Your task to perform on an android device: open sync settings in chrome Image 0: 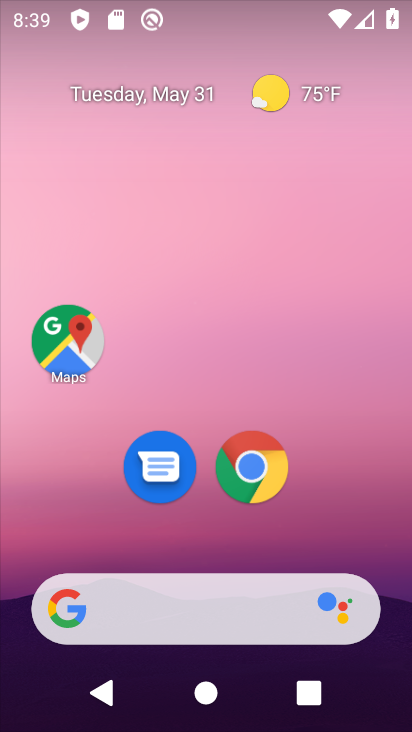
Step 0: drag from (216, 511) to (272, 135)
Your task to perform on an android device: open sync settings in chrome Image 1: 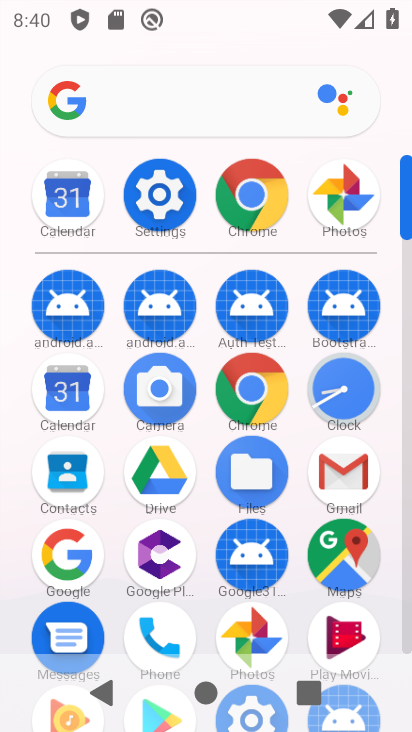
Step 1: click (260, 203)
Your task to perform on an android device: open sync settings in chrome Image 2: 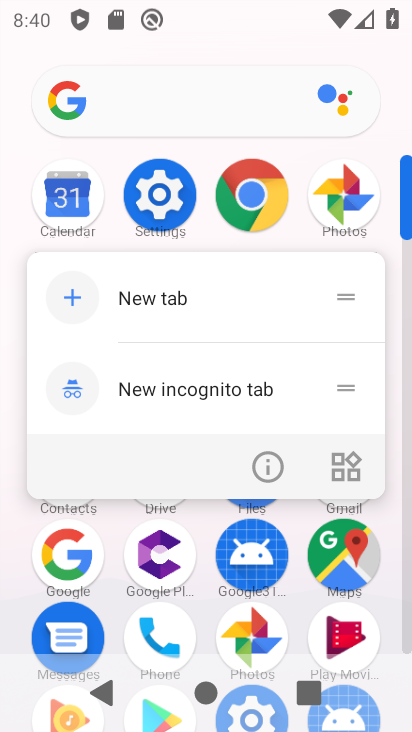
Step 2: click (268, 455)
Your task to perform on an android device: open sync settings in chrome Image 3: 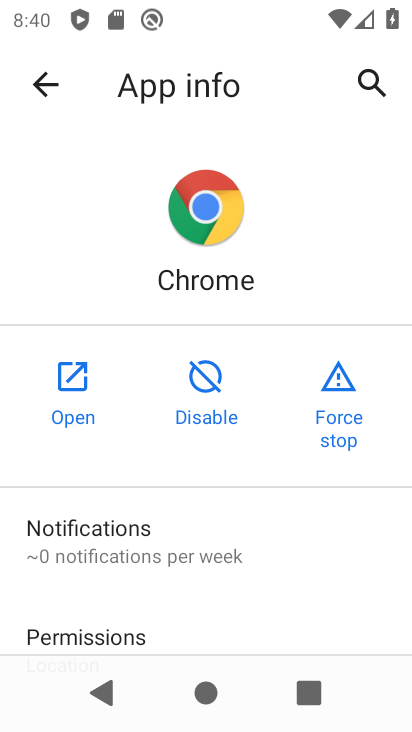
Step 3: click (67, 391)
Your task to perform on an android device: open sync settings in chrome Image 4: 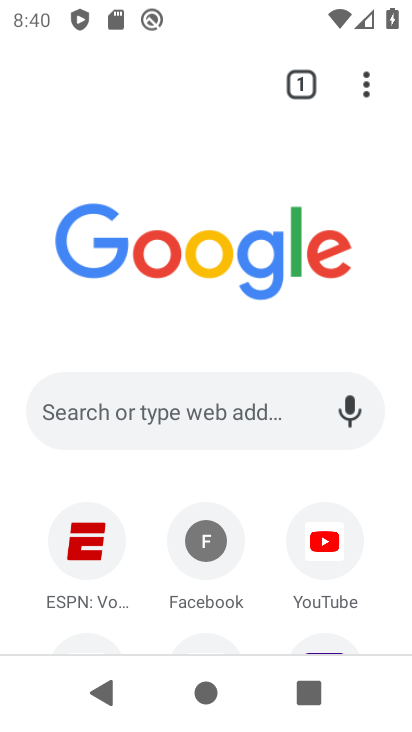
Step 4: click (363, 91)
Your task to perform on an android device: open sync settings in chrome Image 5: 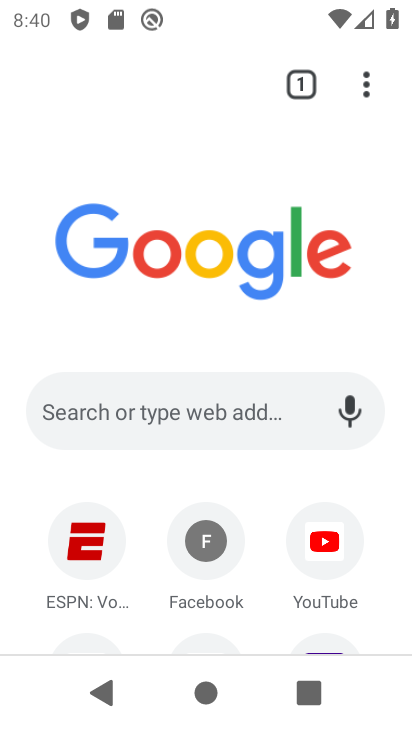
Step 5: click (364, 91)
Your task to perform on an android device: open sync settings in chrome Image 6: 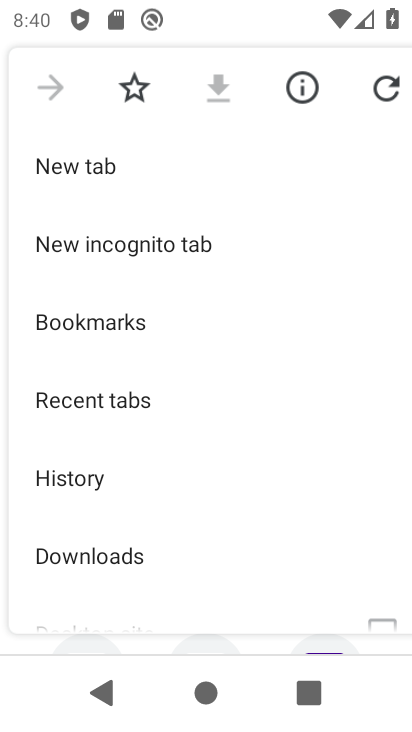
Step 6: drag from (365, 92) to (133, 503)
Your task to perform on an android device: open sync settings in chrome Image 7: 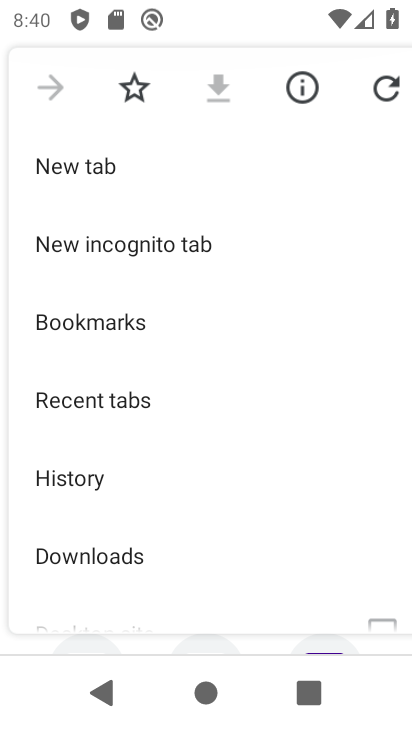
Step 7: drag from (141, 490) to (242, 165)
Your task to perform on an android device: open sync settings in chrome Image 8: 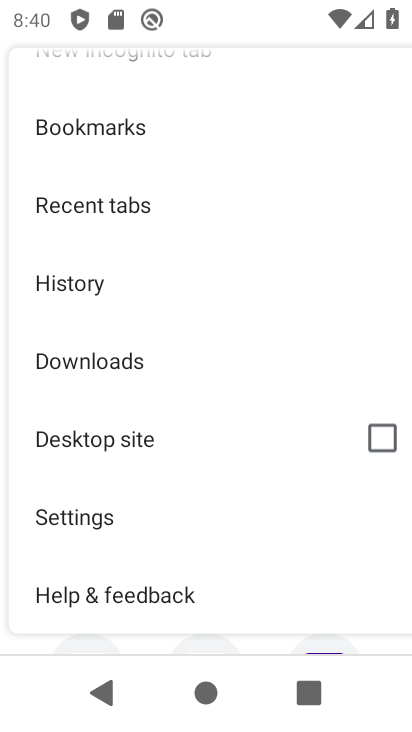
Step 8: click (133, 518)
Your task to perform on an android device: open sync settings in chrome Image 9: 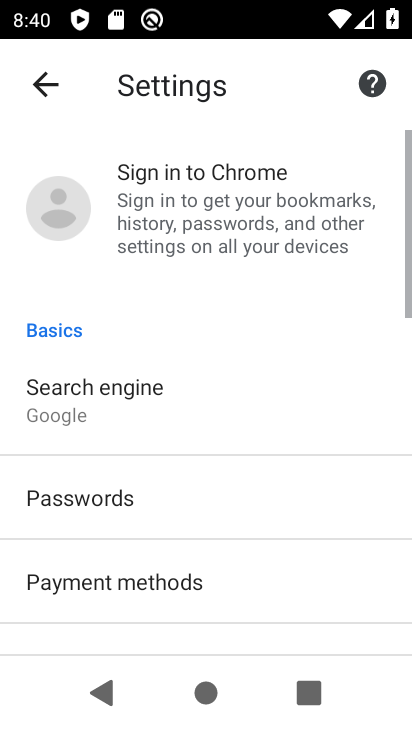
Step 9: drag from (213, 453) to (281, 232)
Your task to perform on an android device: open sync settings in chrome Image 10: 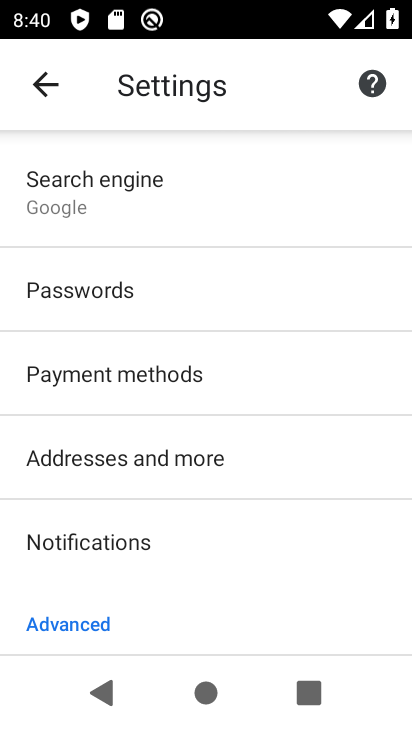
Step 10: drag from (213, 524) to (307, 118)
Your task to perform on an android device: open sync settings in chrome Image 11: 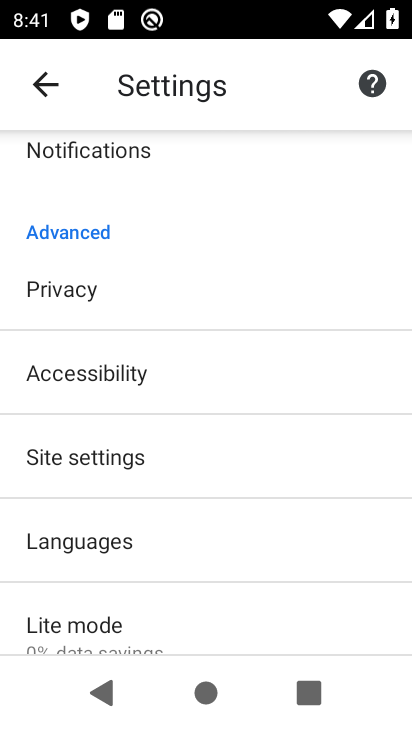
Step 11: click (143, 464)
Your task to perform on an android device: open sync settings in chrome Image 12: 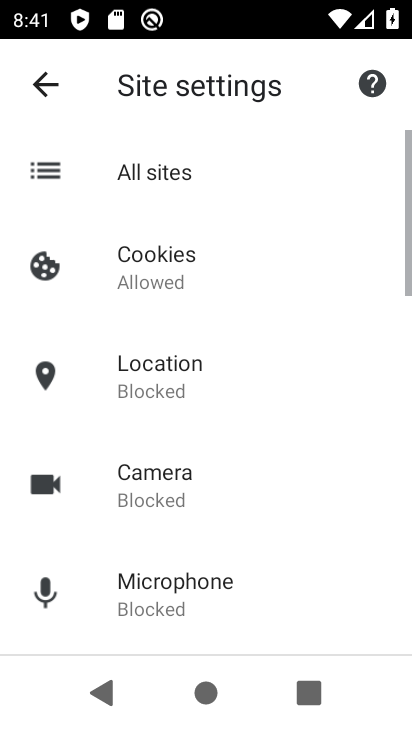
Step 12: drag from (204, 548) to (330, 71)
Your task to perform on an android device: open sync settings in chrome Image 13: 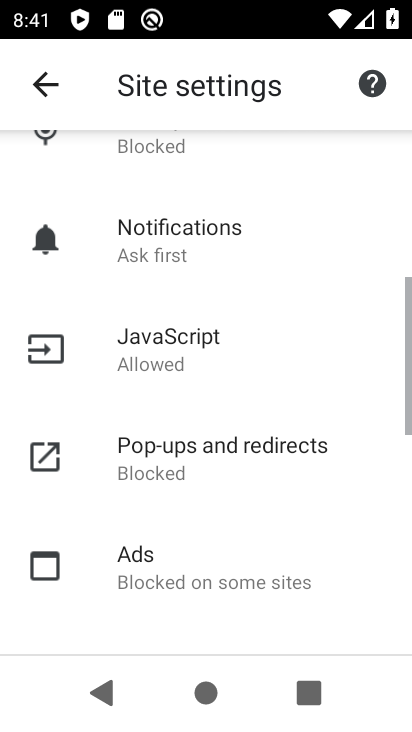
Step 13: drag from (240, 422) to (342, 60)
Your task to perform on an android device: open sync settings in chrome Image 14: 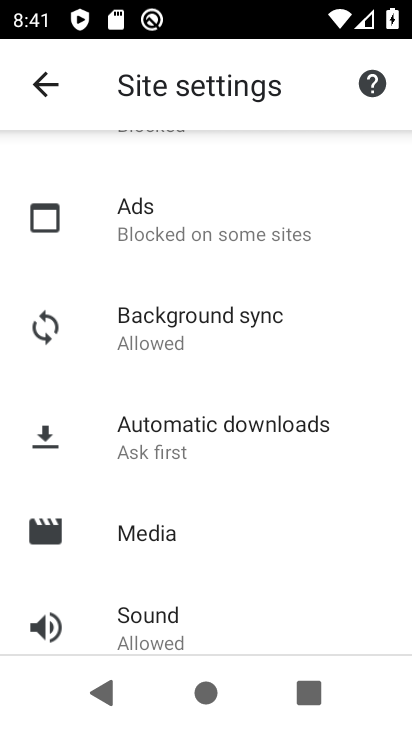
Step 14: click (216, 330)
Your task to perform on an android device: open sync settings in chrome Image 15: 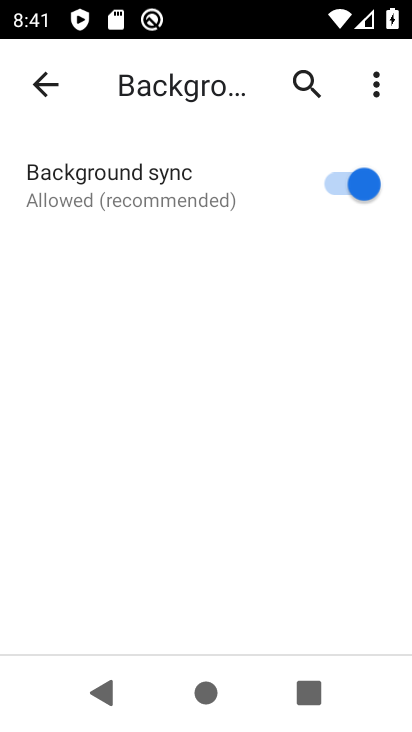
Step 15: task complete